Your task to perform on an android device: toggle sleep mode Image 0: 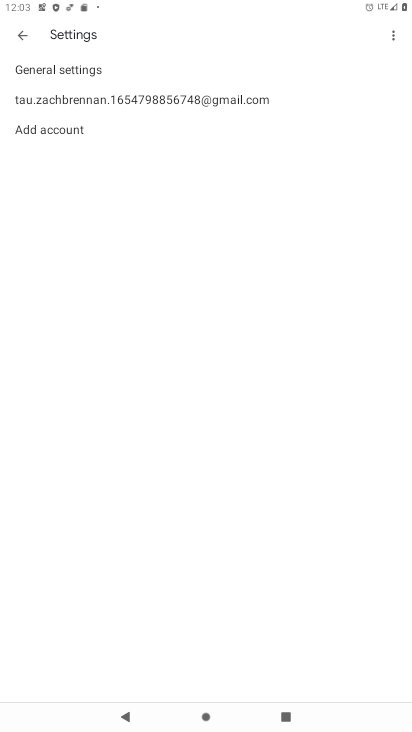
Step 0: press home button
Your task to perform on an android device: toggle sleep mode Image 1: 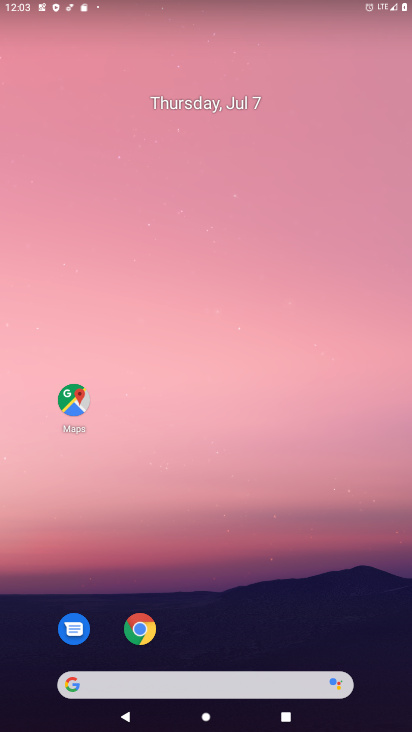
Step 1: drag from (251, 633) to (261, 149)
Your task to perform on an android device: toggle sleep mode Image 2: 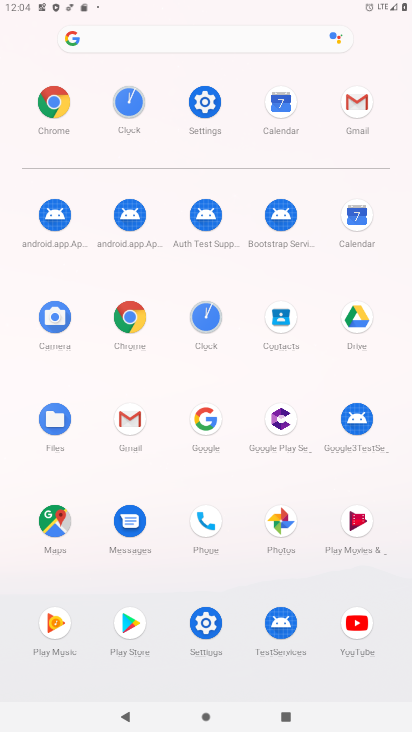
Step 2: click (206, 621)
Your task to perform on an android device: toggle sleep mode Image 3: 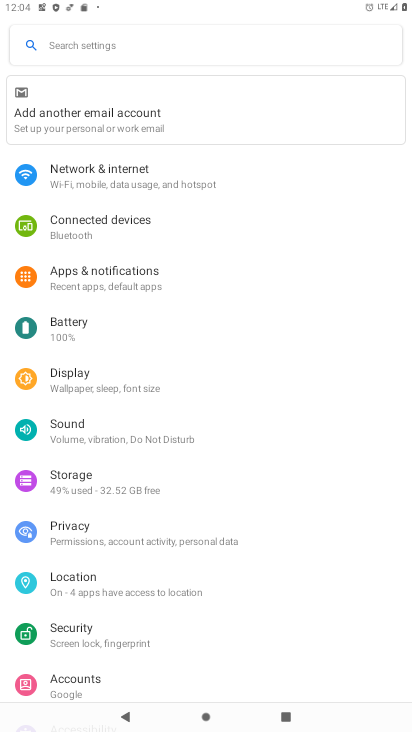
Step 3: click (97, 383)
Your task to perform on an android device: toggle sleep mode Image 4: 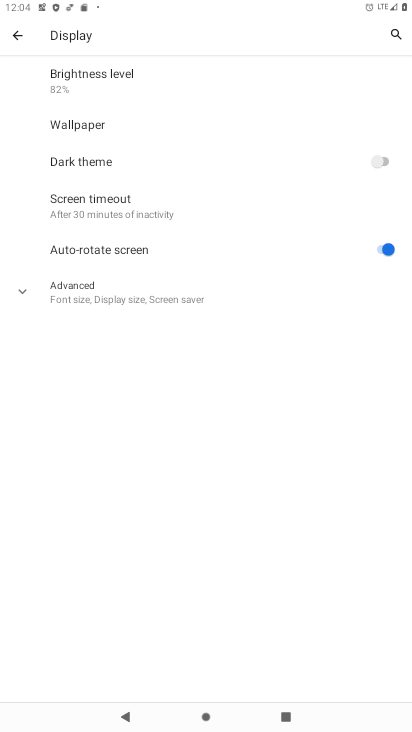
Step 4: click (88, 300)
Your task to perform on an android device: toggle sleep mode Image 5: 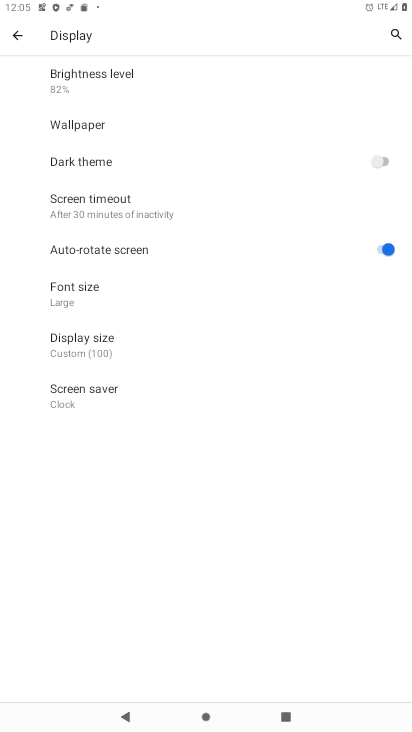
Step 5: task complete